Your task to perform on an android device: toggle wifi Image 0: 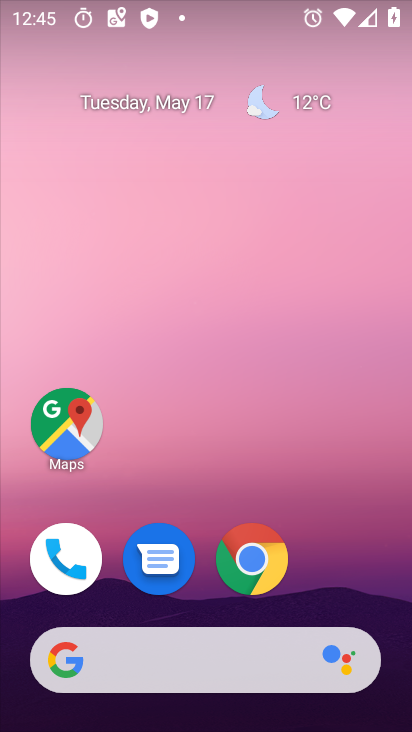
Step 0: drag from (349, 557) to (331, 97)
Your task to perform on an android device: toggle wifi Image 1: 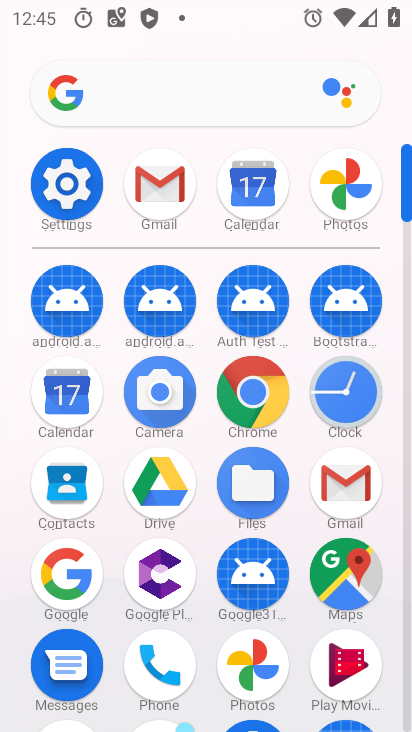
Step 1: click (71, 194)
Your task to perform on an android device: toggle wifi Image 2: 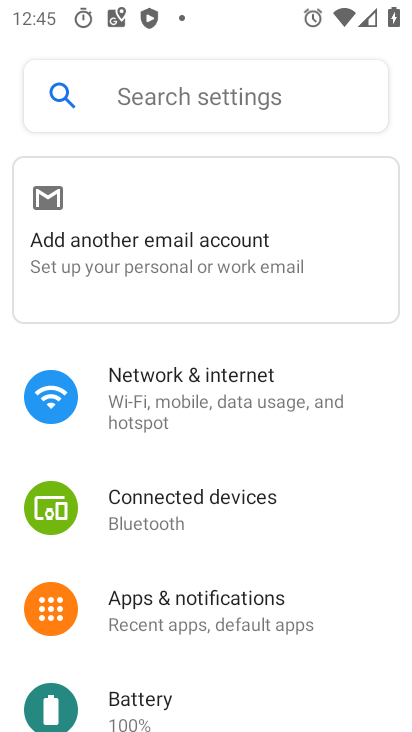
Step 2: click (223, 410)
Your task to perform on an android device: toggle wifi Image 3: 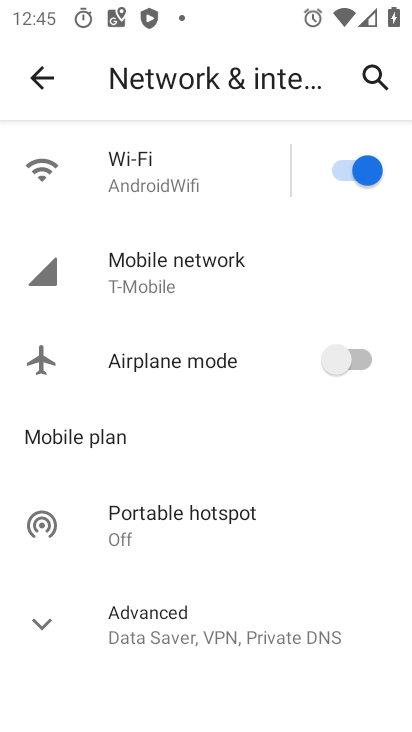
Step 3: click (336, 168)
Your task to perform on an android device: toggle wifi Image 4: 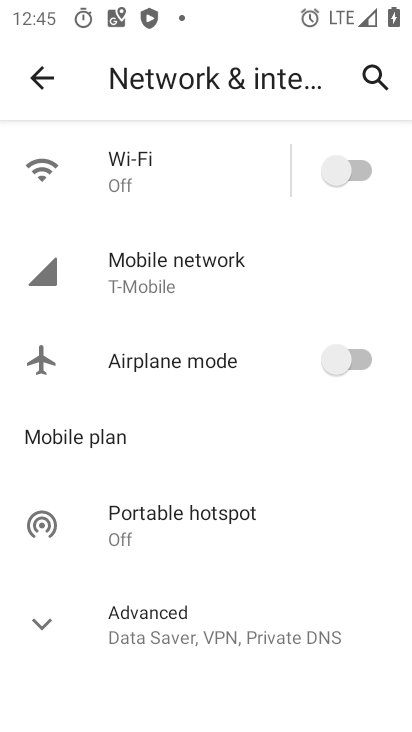
Step 4: task complete